Your task to perform on an android device: check storage Image 0: 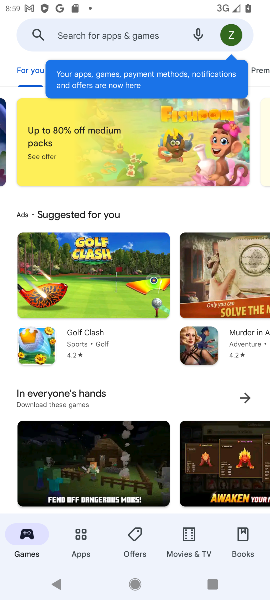
Step 0: press home button
Your task to perform on an android device: check storage Image 1: 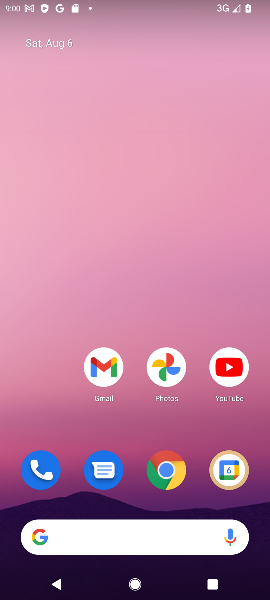
Step 1: drag from (176, 520) to (156, 80)
Your task to perform on an android device: check storage Image 2: 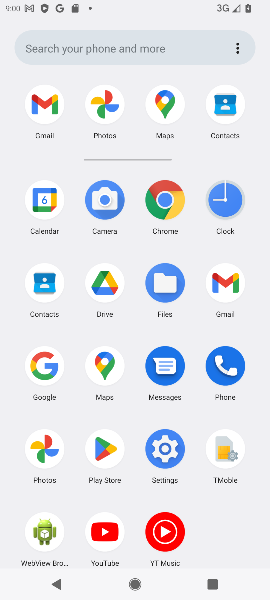
Step 2: click (170, 449)
Your task to perform on an android device: check storage Image 3: 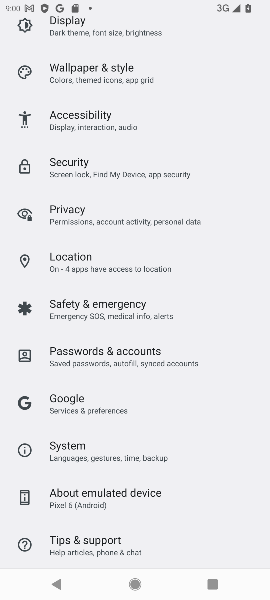
Step 3: drag from (86, 458) to (115, 155)
Your task to perform on an android device: check storage Image 4: 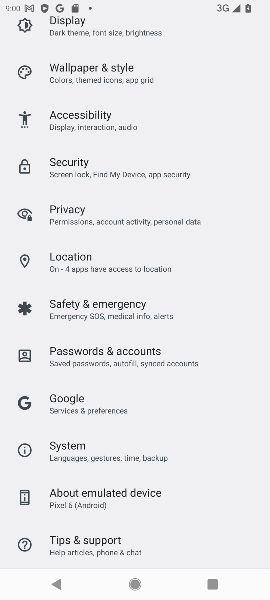
Step 4: drag from (129, 347) to (130, 517)
Your task to perform on an android device: check storage Image 5: 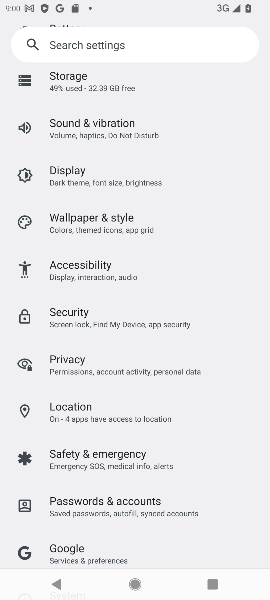
Step 5: drag from (113, 314) to (130, 536)
Your task to perform on an android device: check storage Image 6: 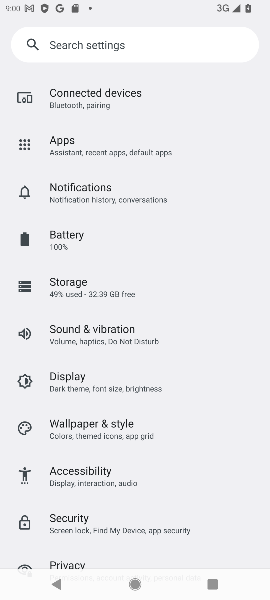
Step 6: click (80, 294)
Your task to perform on an android device: check storage Image 7: 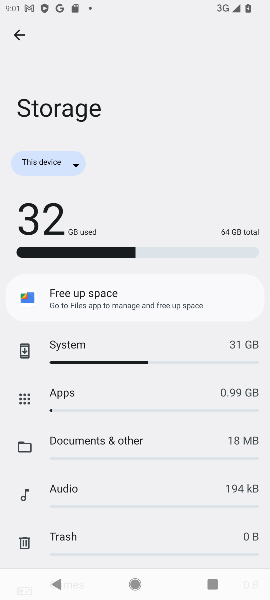
Step 7: task complete